Your task to perform on an android device: What's the weather? Image 0: 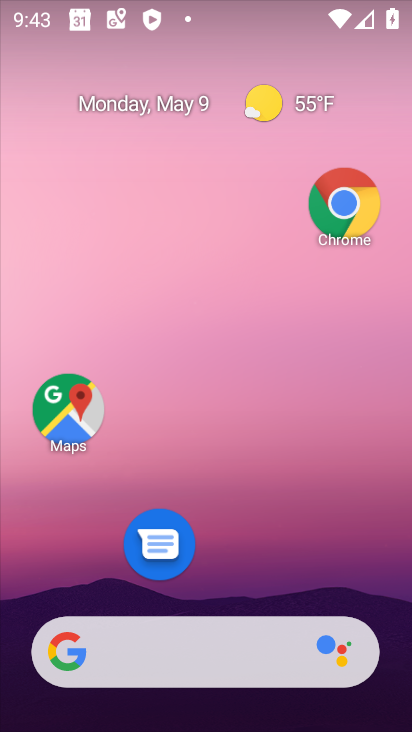
Step 0: drag from (236, 251) to (236, 81)
Your task to perform on an android device: What's the weather? Image 1: 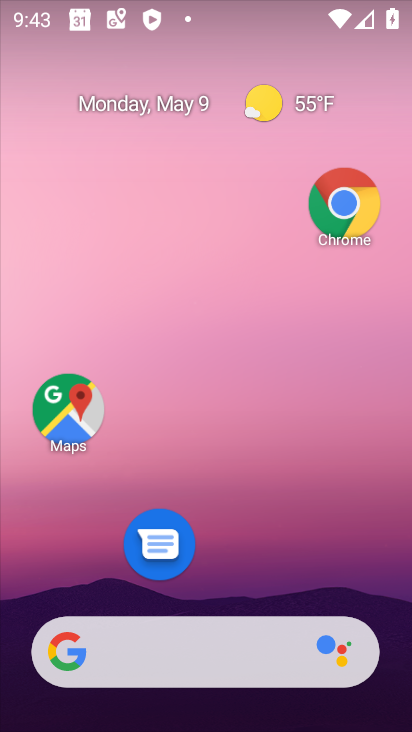
Step 1: drag from (217, 439) to (217, 109)
Your task to perform on an android device: What's the weather? Image 2: 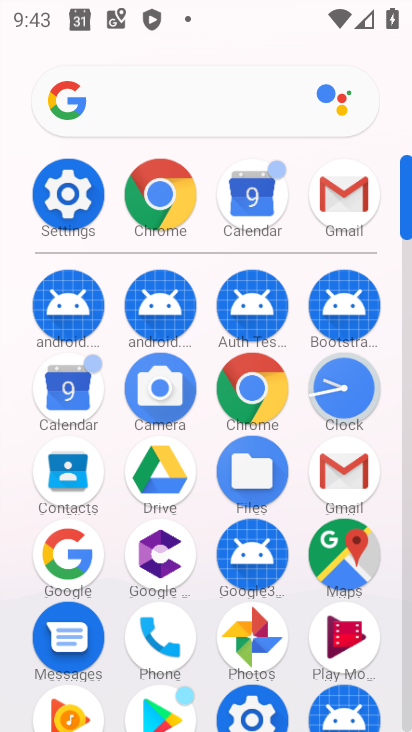
Step 2: click (95, 543)
Your task to perform on an android device: What's the weather? Image 3: 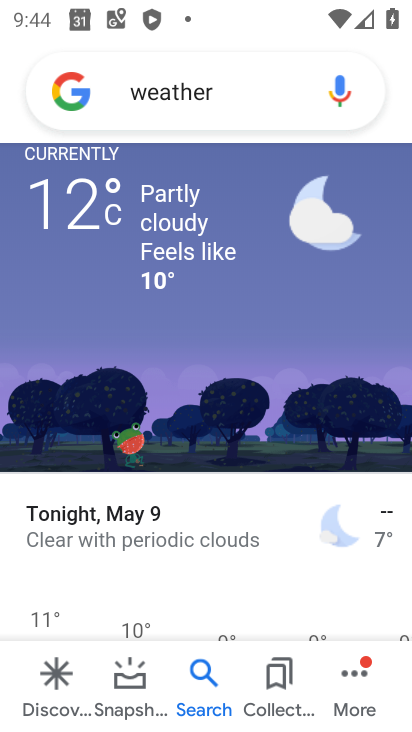
Step 3: task complete